Your task to perform on an android device: Go to Google maps Image 0: 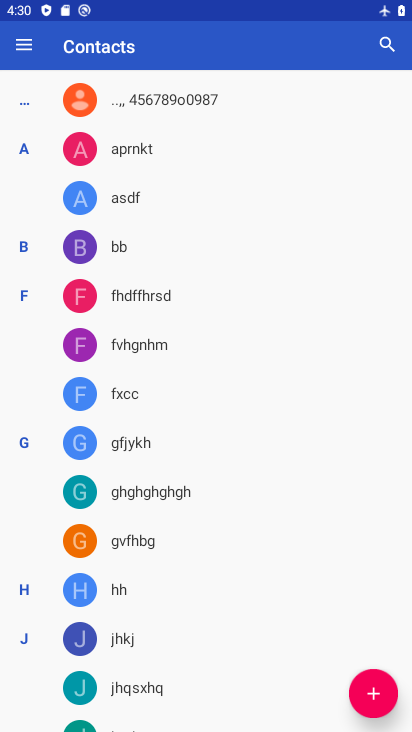
Step 0: press home button
Your task to perform on an android device: Go to Google maps Image 1: 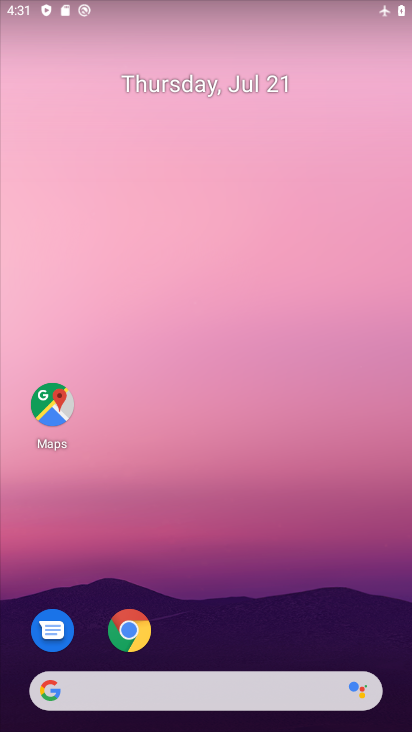
Step 1: click (47, 401)
Your task to perform on an android device: Go to Google maps Image 2: 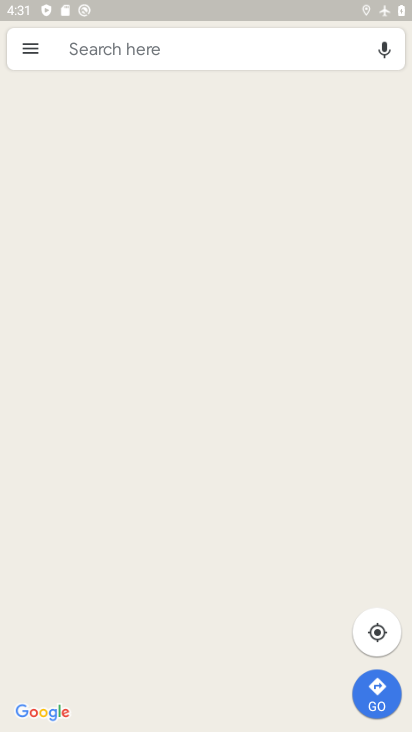
Step 2: task complete